Your task to perform on an android device: open the mobile data screen to see how much data has been used Image 0: 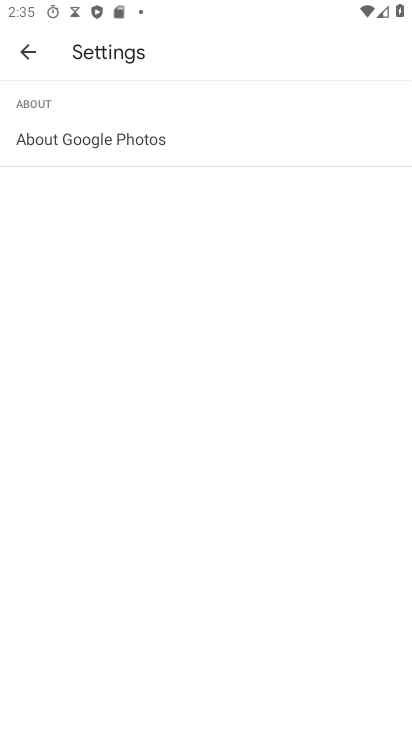
Step 0: press home button
Your task to perform on an android device: open the mobile data screen to see how much data has been used Image 1: 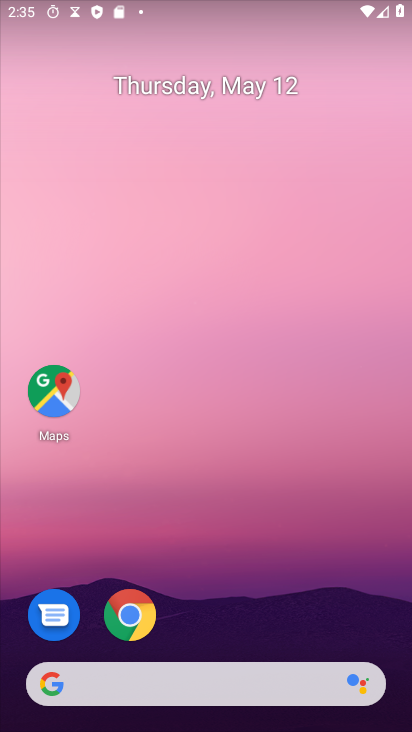
Step 1: drag from (8, 596) to (258, 172)
Your task to perform on an android device: open the mobile data screen to see how much data has been used Image 2: 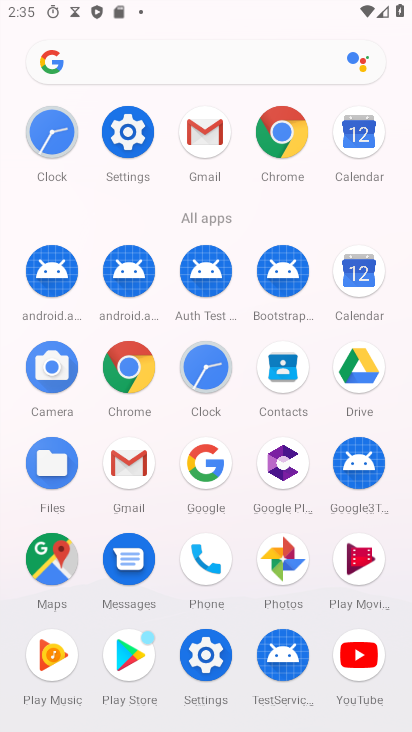
Step 2: click (134, 111)
Your task to perform on an android device: open the mobile data screen to see how much data has been used Image 3: 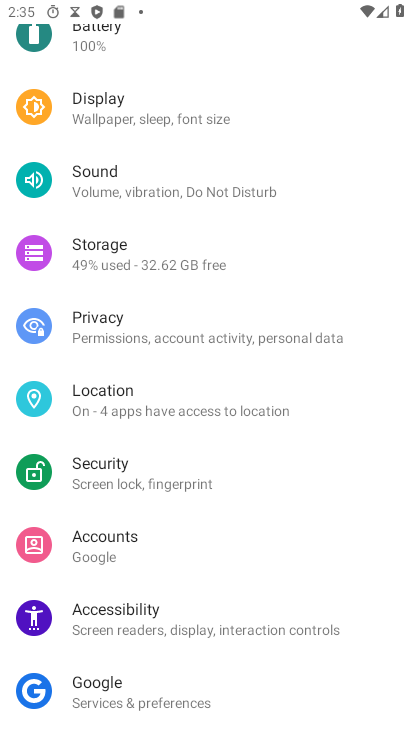
Step 3: drag from (167, 106) to (82, 680)
Your task to perform on an android device: open the mobile data screen to see how much data has been used Image 4: 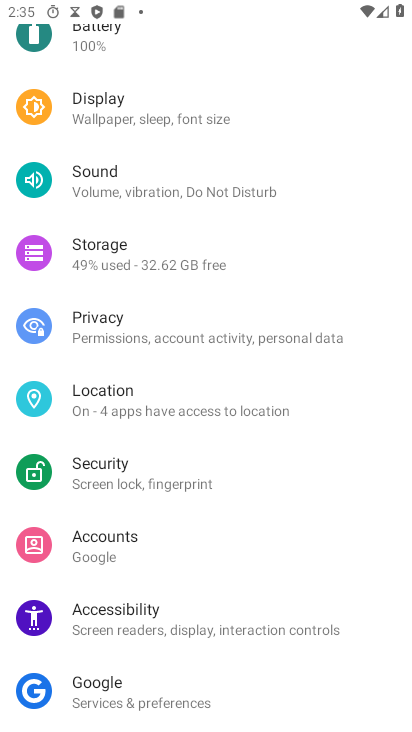
Step 4: drag from (191, 156) to (203, 726)
Your task to perform on an android device: open the mobile data screen to see how much data has been used Image 5: 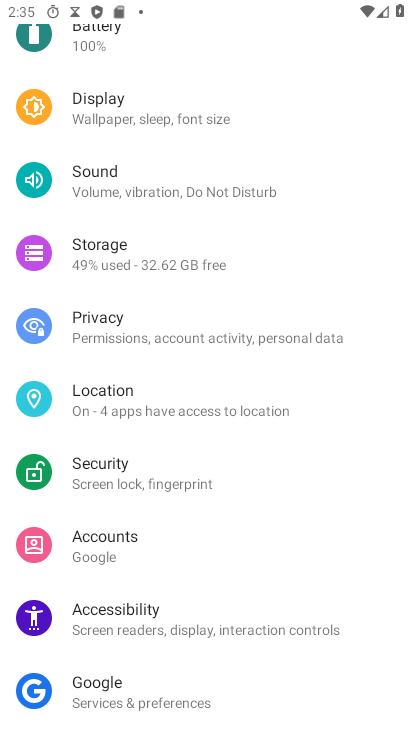
Step 5: drag from (228, 132) to (164, 719)
Your task to perform on an android device: open the mobile data screen to see how much data has been used Image 6: 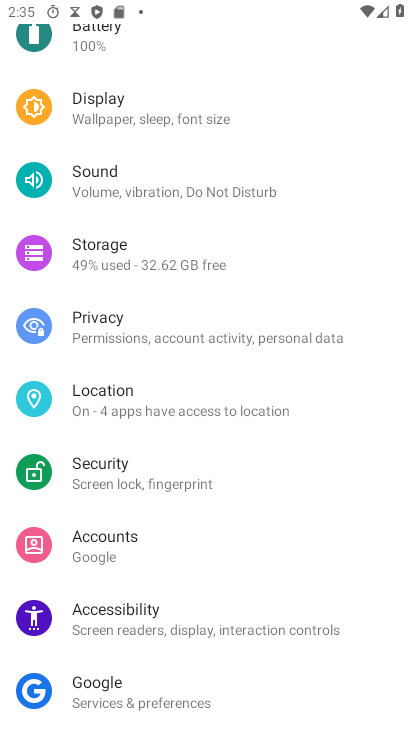
Step 6: drag from (24, 136) to (73, 726)
Your task to perform on an android device: open the mobile data screen to see how much data has been used Image 7: 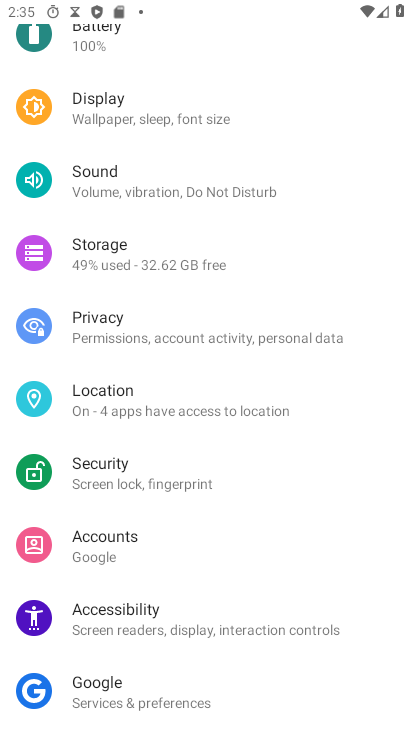
Step 7: drag from (150, 104) to (190, 714)
Your task to perform on an android device: open the mobile data screen to see how much data has been used Image 8: 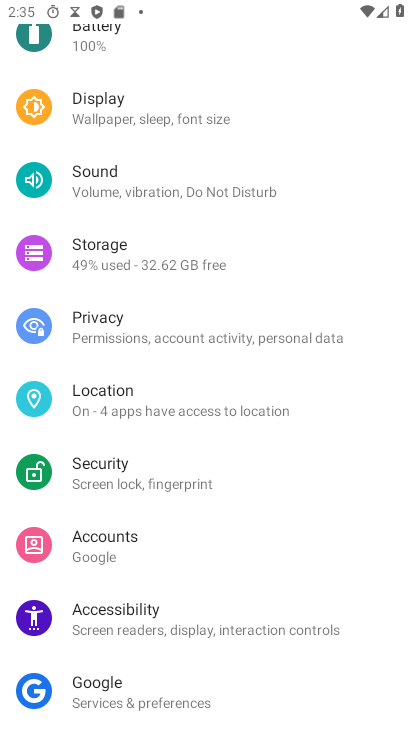
Step 8: drag from (165, 92) to (171, 727)
Your task to perform on an android device: open the mobile data screen to see how much data has been used Image 9: 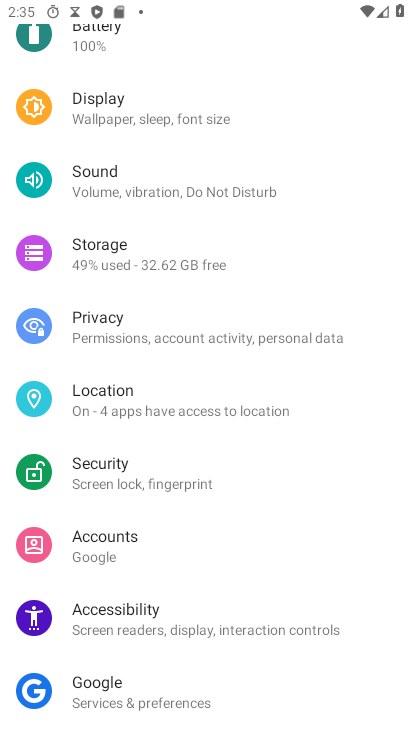
Step 9: drag from (105, 33) to (202, 681)
Your task to perform on an android device: open the mobile data screen to see how much data has been used Image 10: 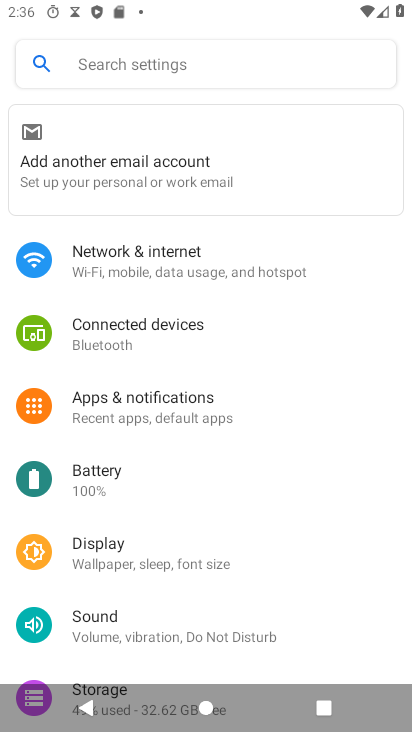
Step 10: click (217, 258)
Your task to perform on an android device: open the mobile data screen to see how much data has been used Image 11: 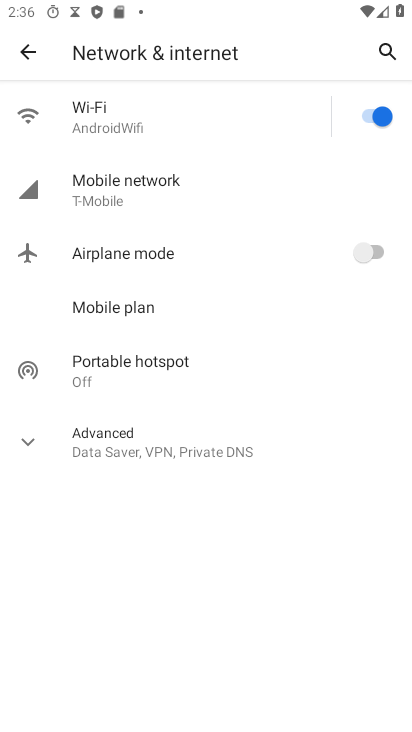
Step 11: click (106, 205)
Your task to perform on an android device: open the mobile data screen to see how much data has been used Image 12: 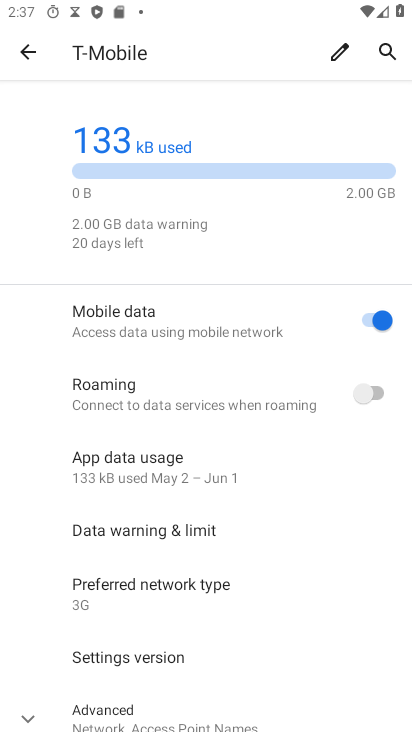
Step 12: task complete